Your task to perform on an android device: turn on priority inbox in the gmail app Image 0: 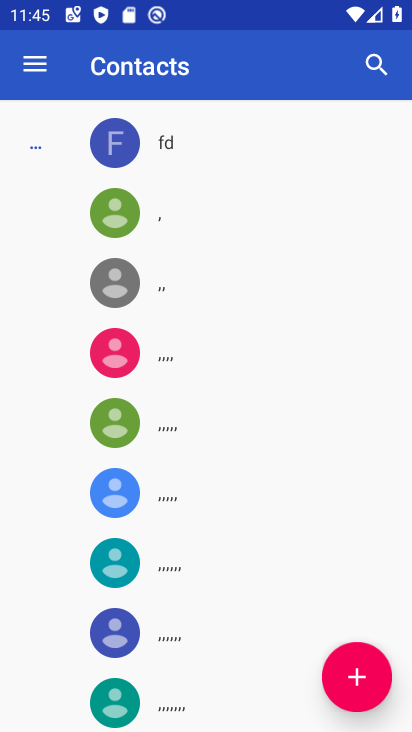
Step 0: press home button
Your task to perform on an android device: turn on priority inbox in the gmail app Image 1: 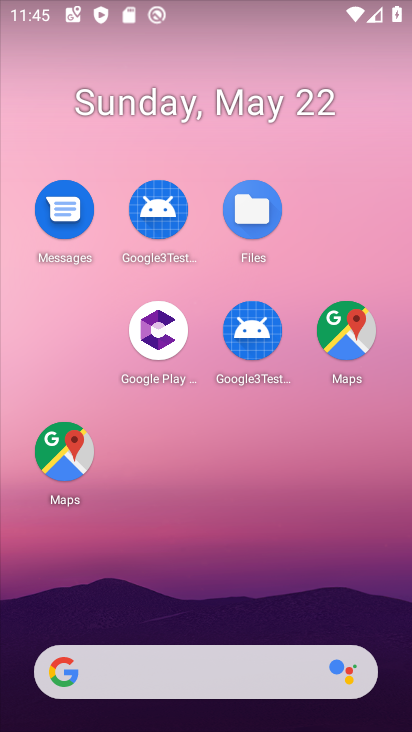
Step 1: drag from (211, 615) to (178, 43)
Your task to perform on an android device: turn on priority inbox in the gmail app Image 2: 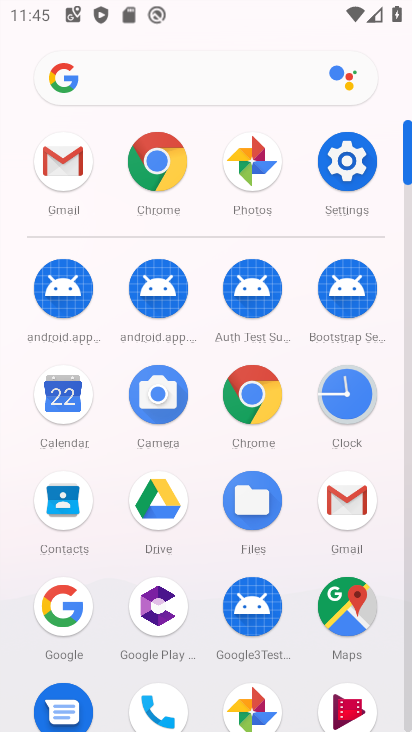
Step 2: click (341, 513)
Your task to perform on an android device: turn on priority inbox in the gmail app Image 3: 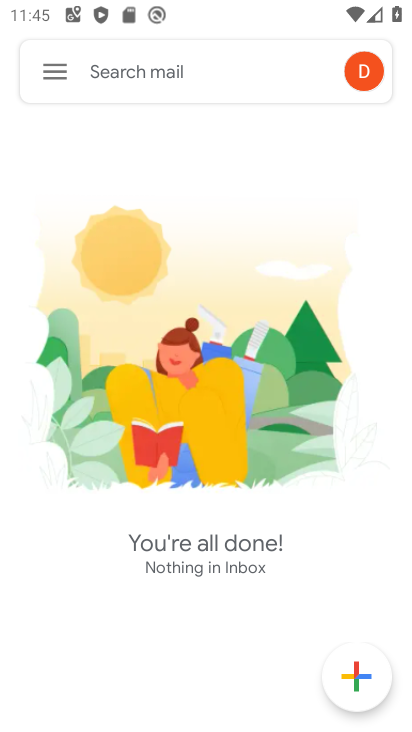
Step 3: click (44, 70)
Your task to perform on an android device: turn on priority inbox in the gmail app Image 4: 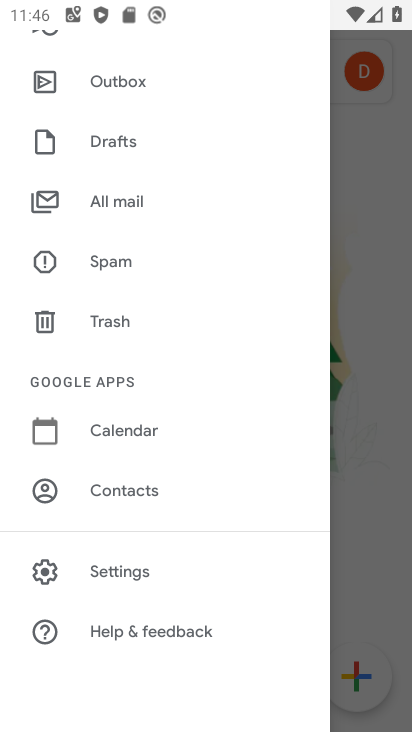
Step 4: click (103, 561)
Your task to perform on an android device: turn on priority inbox in the gmail app Image 5: 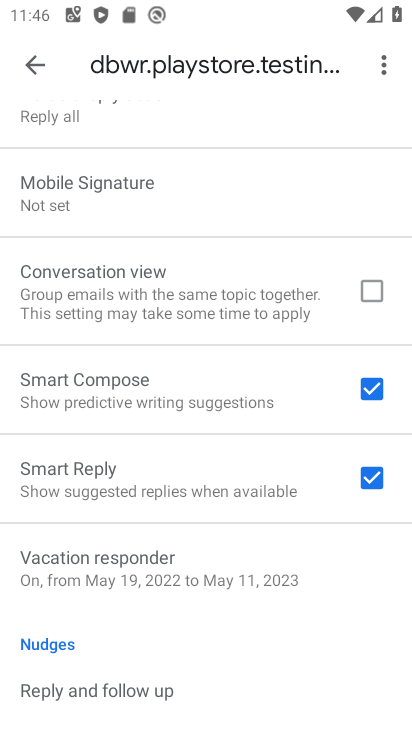
Step 5: drag from (103, 143) to (22, 206)
Your task to perform on an android device: turn on priority inbox in the gmail app Image 6: 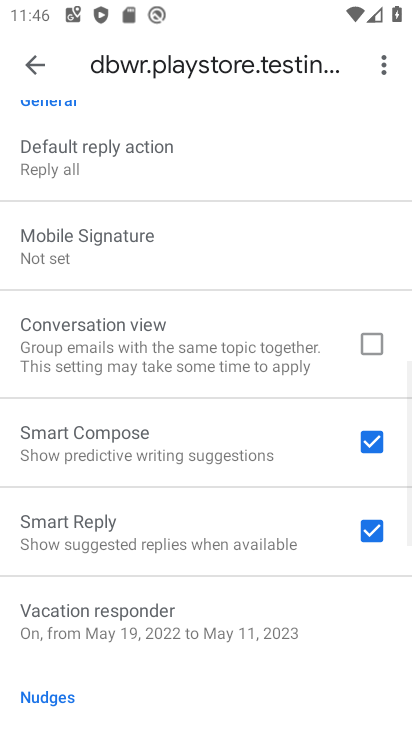
Step 6: drag from (126, 197) to (92, 632)
Your task to perform on an android device: turn on priority inbox in the gmail app Image 7: 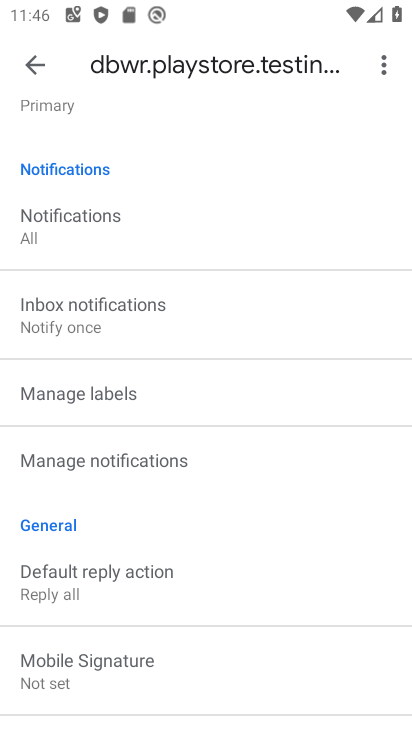
Step 7: drag from (107, 100) to (126, 696)
Your task to perform on an android device: turn on priority inbox in the gmail app Image 8: 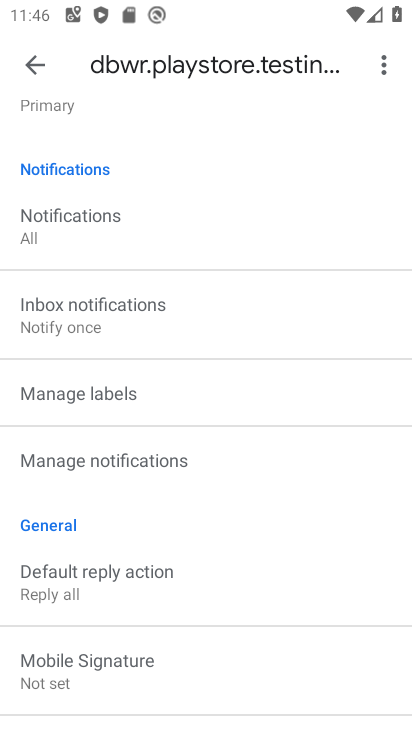
Step 8: drag from (259, 272) to (213, 621)
Your task to perform on an android device: turn on priority inbox in the gmail app Image 9: 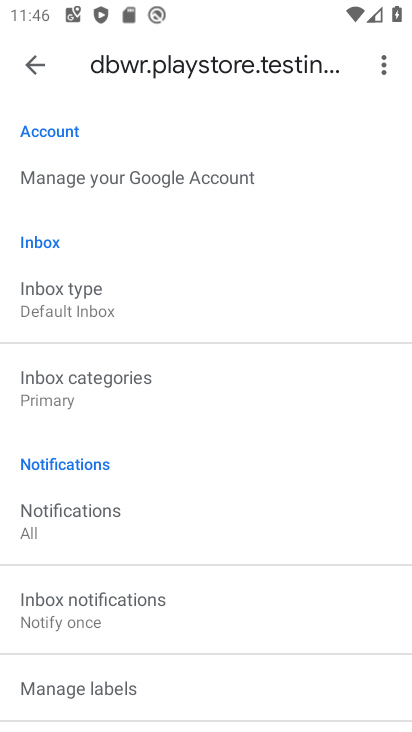
Step 9: click (98, 316)
Your task to perform on an android device: turn on priority inbox in the gmail app Image 10: 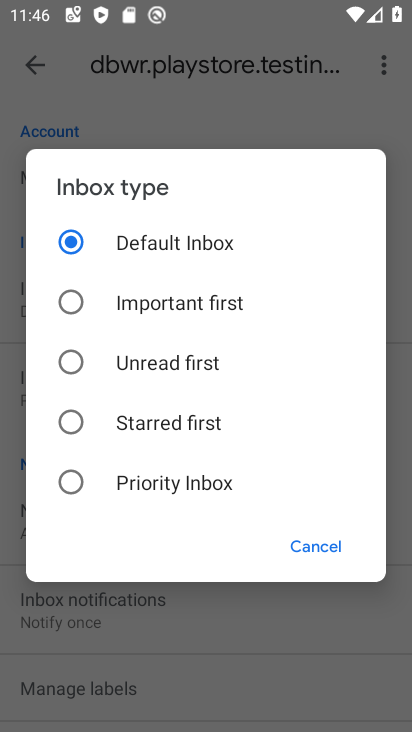
Step 10: click (101, 483)
Your task to perform on an android device: turn on priority inbox in the gmail app Image 11: 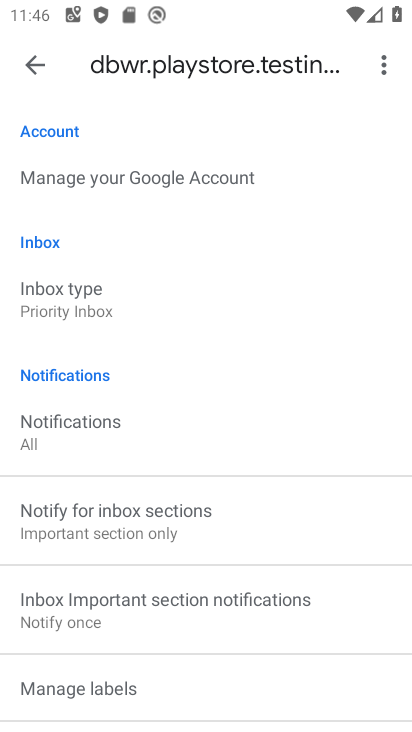
Step 11: task complete